Your task to perform on an android device: What's the weather going to be tomorrow? Image 0: 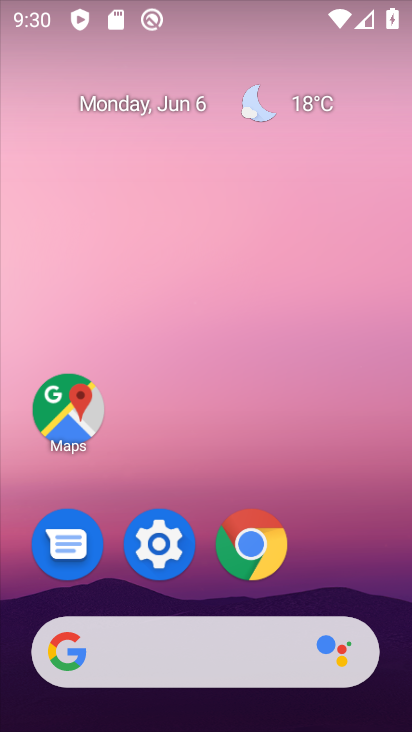
Step 0: drag from (10, 209) to (405, 492)
Your task to perform on an android device: What's the weather going to be tomorrow? Image 1: 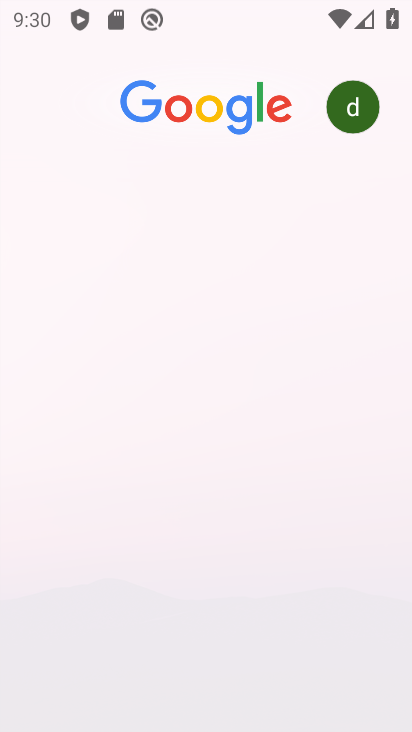
Step 1: task complete